Your task to perform on an android device: toggle notification dots Image 0: 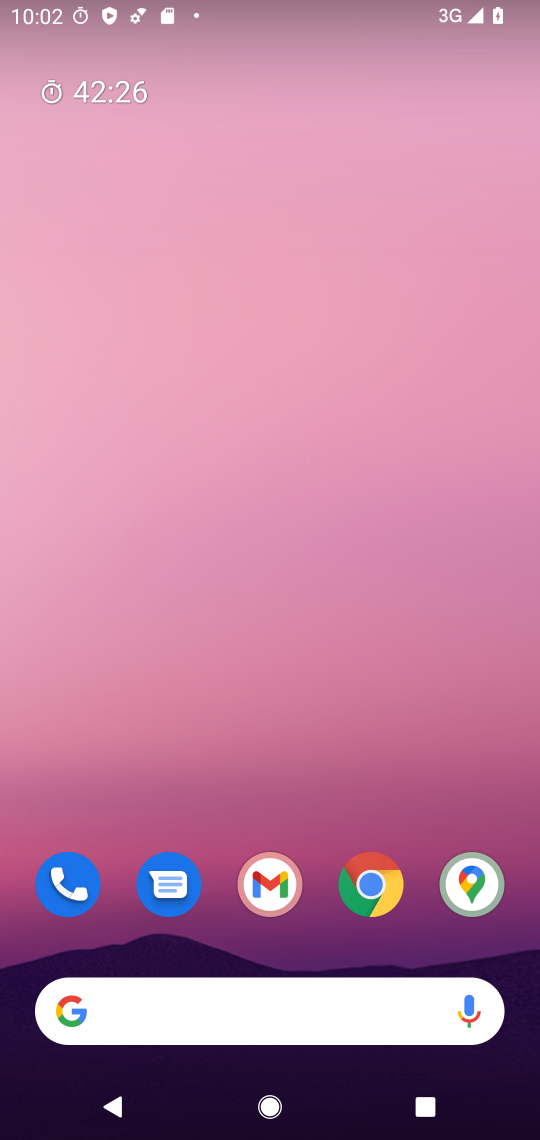
Step 0: drag from (281, 773) to (289, 236)
Your task to perform on an android device: toggle notification dots Image 1: 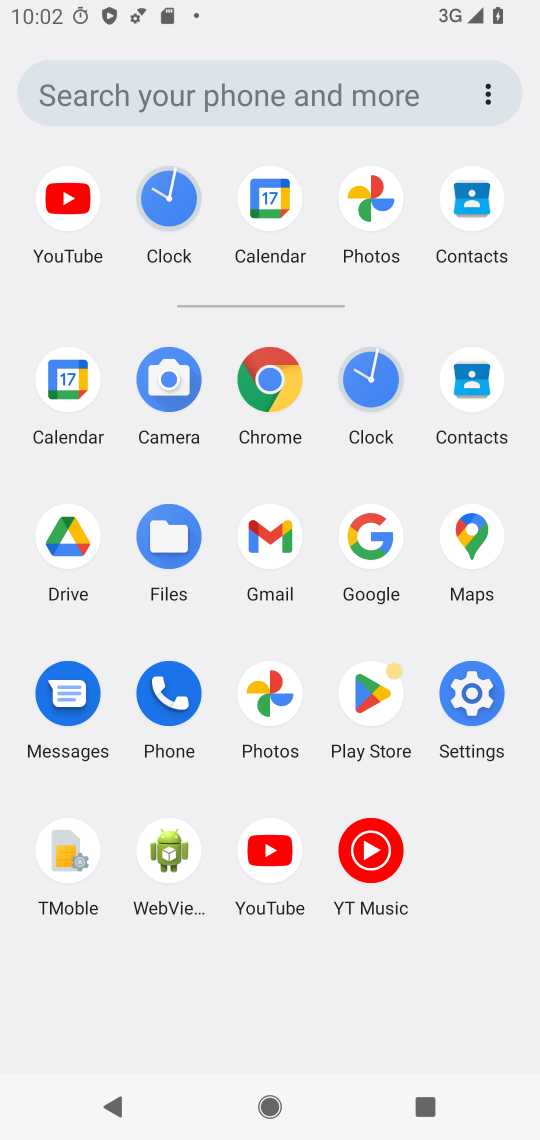
Step 1: click (459, 713)
Your task to perform on an android device: toggle notification dots Image 2: 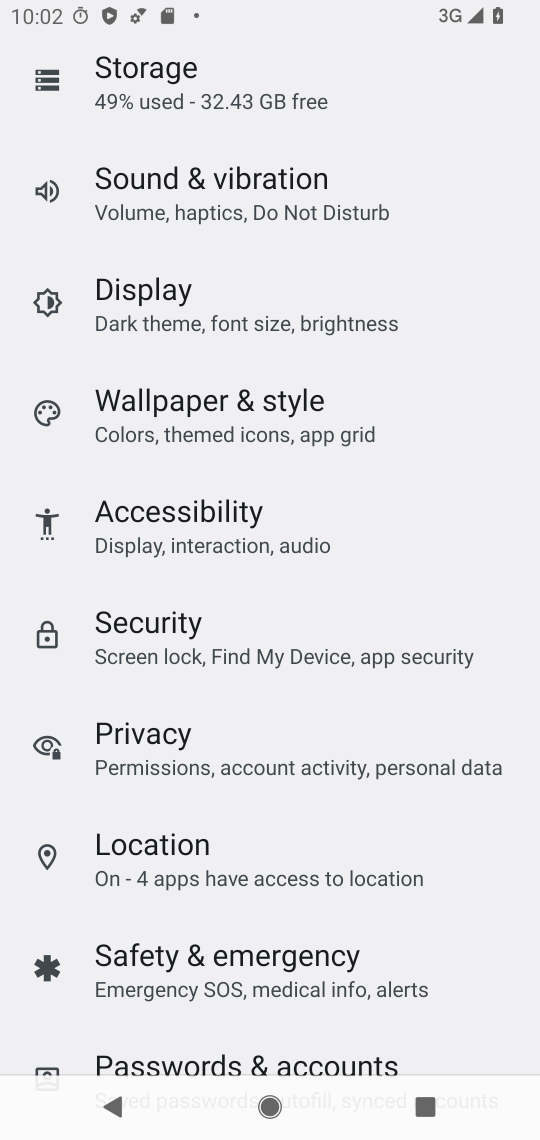
Step 2: drag from (225, 276) to (270, 751)
Your task to perform on an android device: toggle notification dots Image 3: 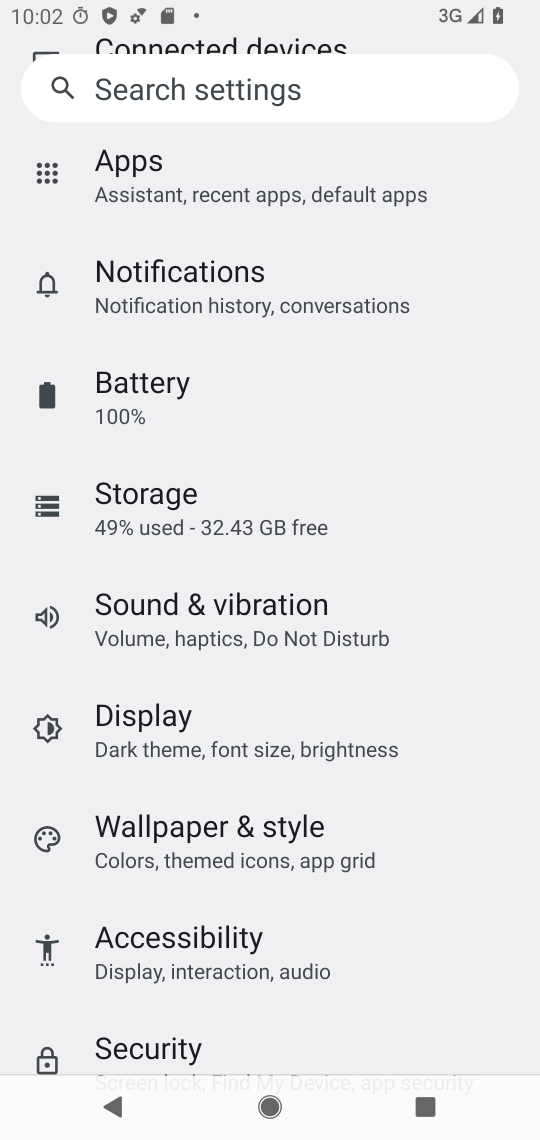
Step 3: click (251, 313)
Your task to perform on an android device: toggle notification dots Image 4: 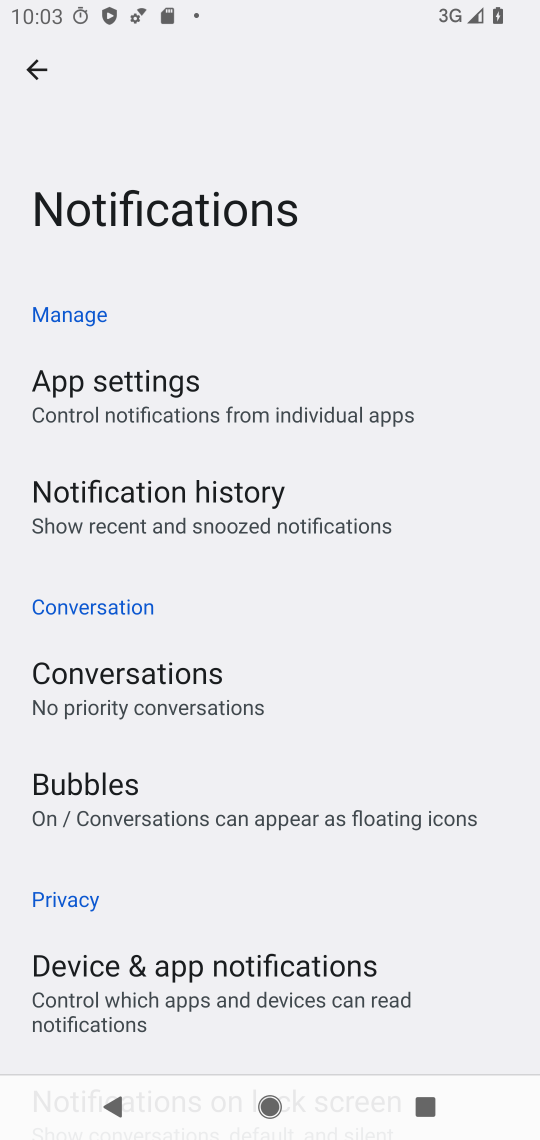
Step 4: drag from (243, 851) to (258, 414)
Your task to perform on an android device: toggle notification dots Image 5: 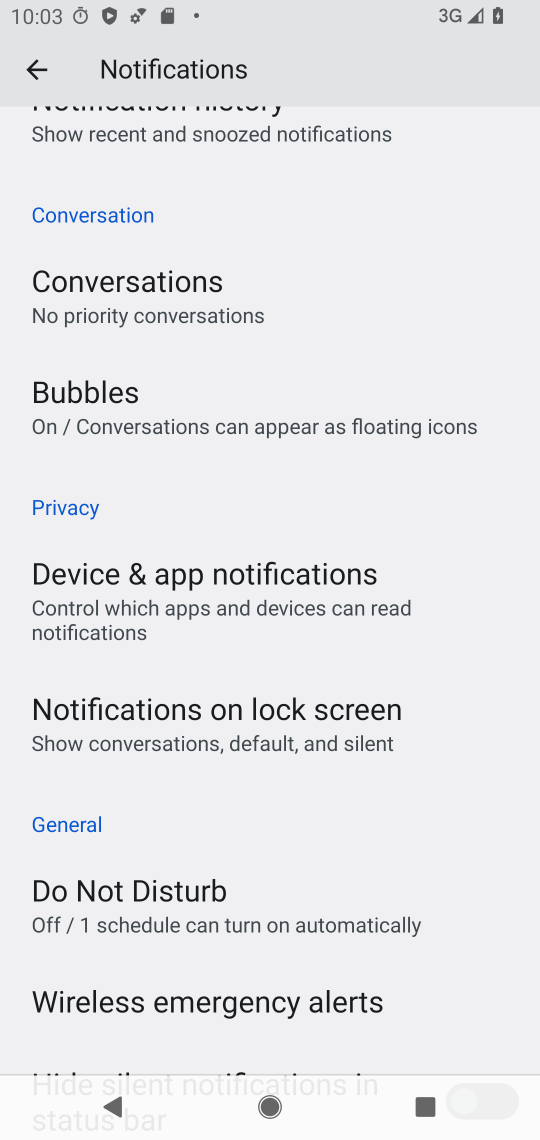
Step 5: click (286, 482)
Your task to perform on an android device: toggle notification dots Image 6: 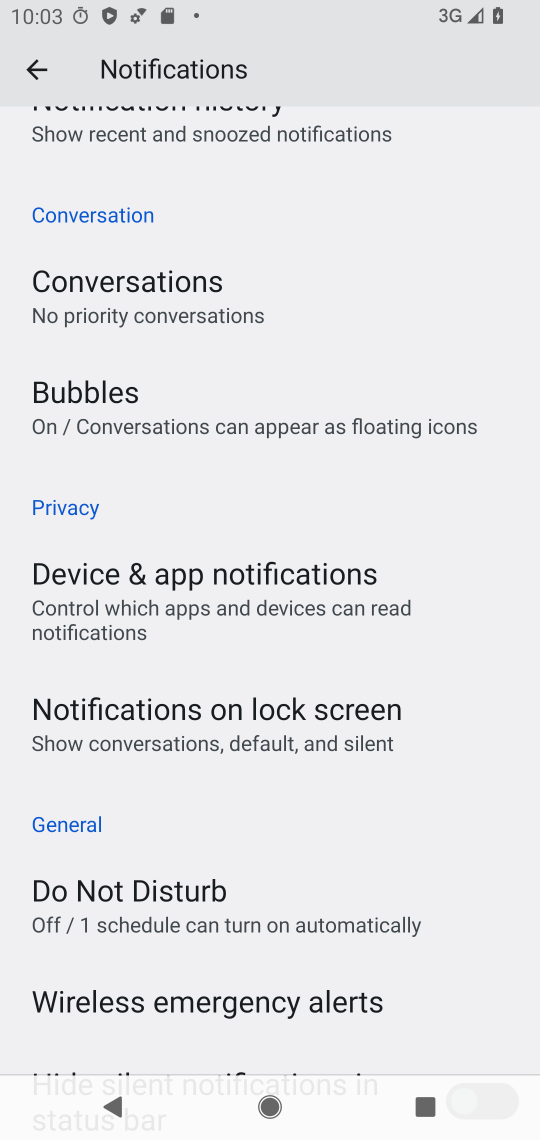
Step 6: drag from (284, 839) to (321, 438)
Your task to perform on an android device: toggle notification dots Image 7: 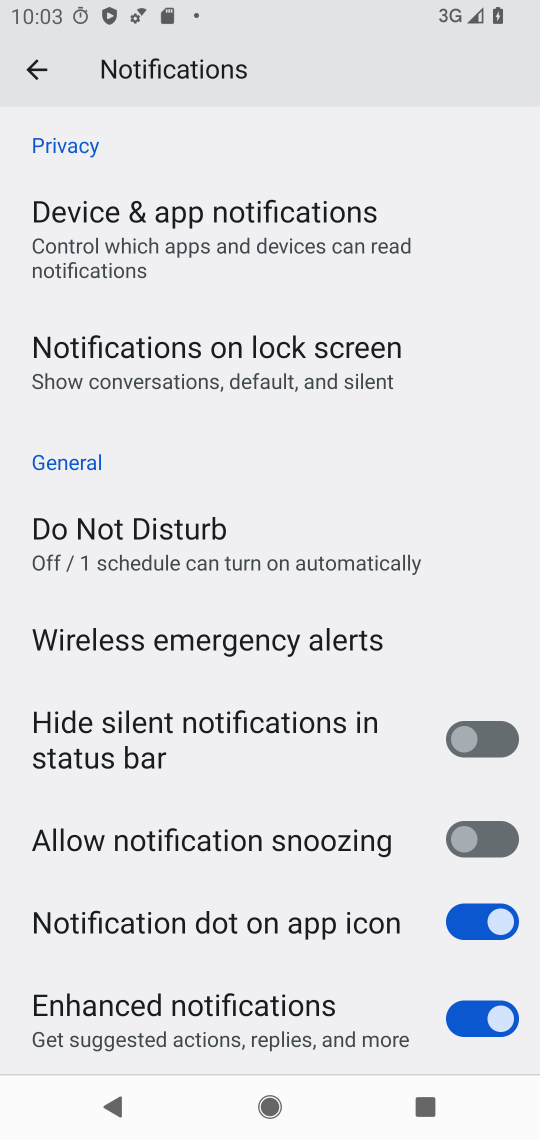
Step 7: click (466, 917)
Your task to perform on an android device: toggle notification dots Image 8: 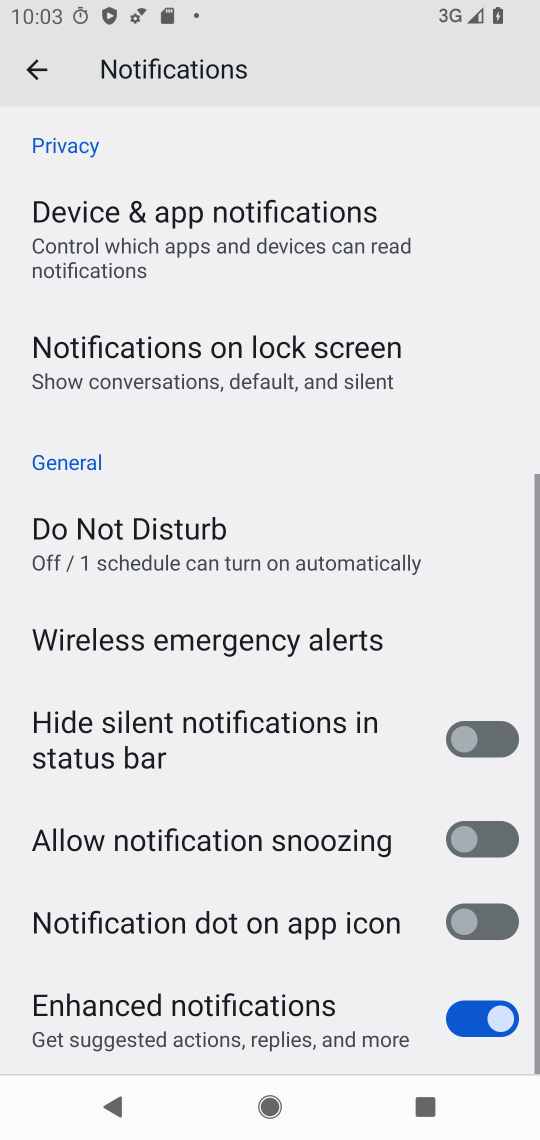
Step 8: task complete